Your task to perform on an android device: Search for "macbook pro 13 inch" on target.com, select the first entry, and add it to the cart. Image 0: 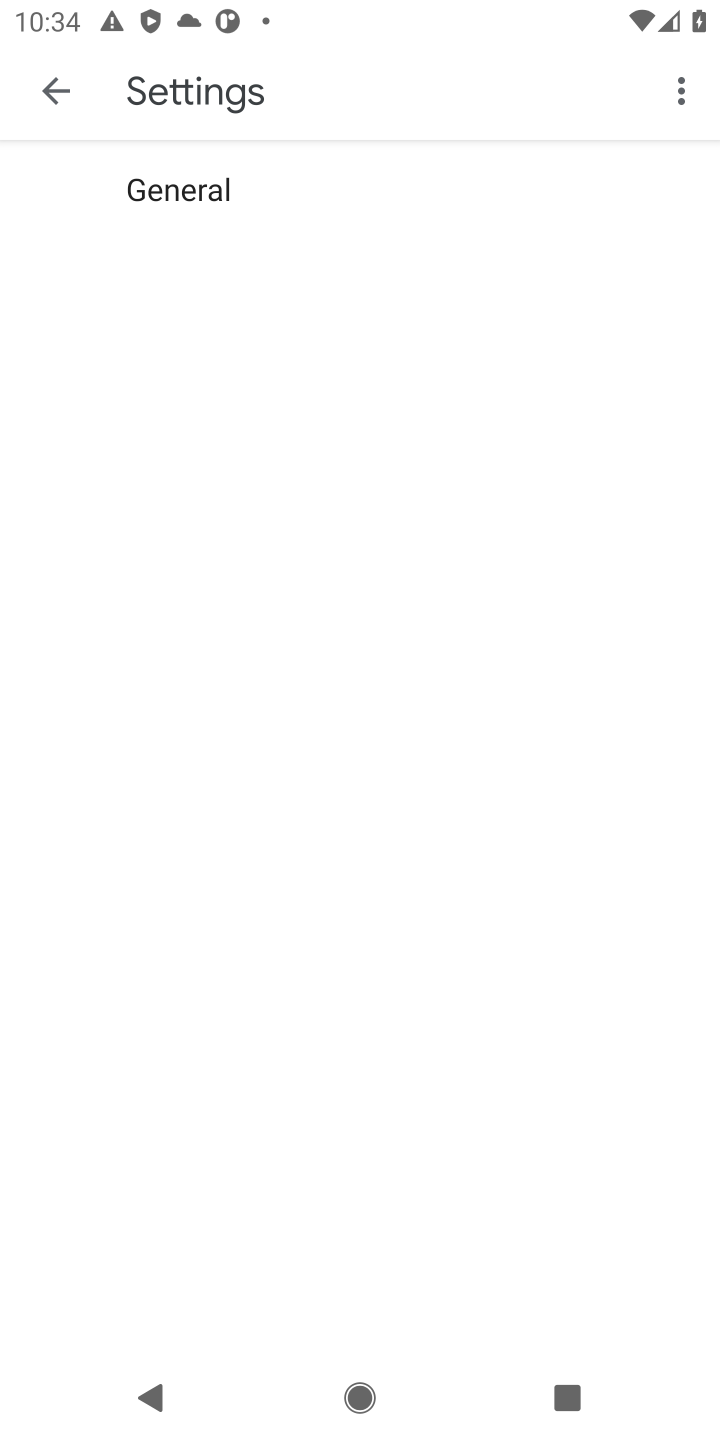
Step 0: press home button
Your task to perform on an android device: Search for "macbook pro 13 inch" on target.com, select the first entry, and add it to the cart. Image 1: 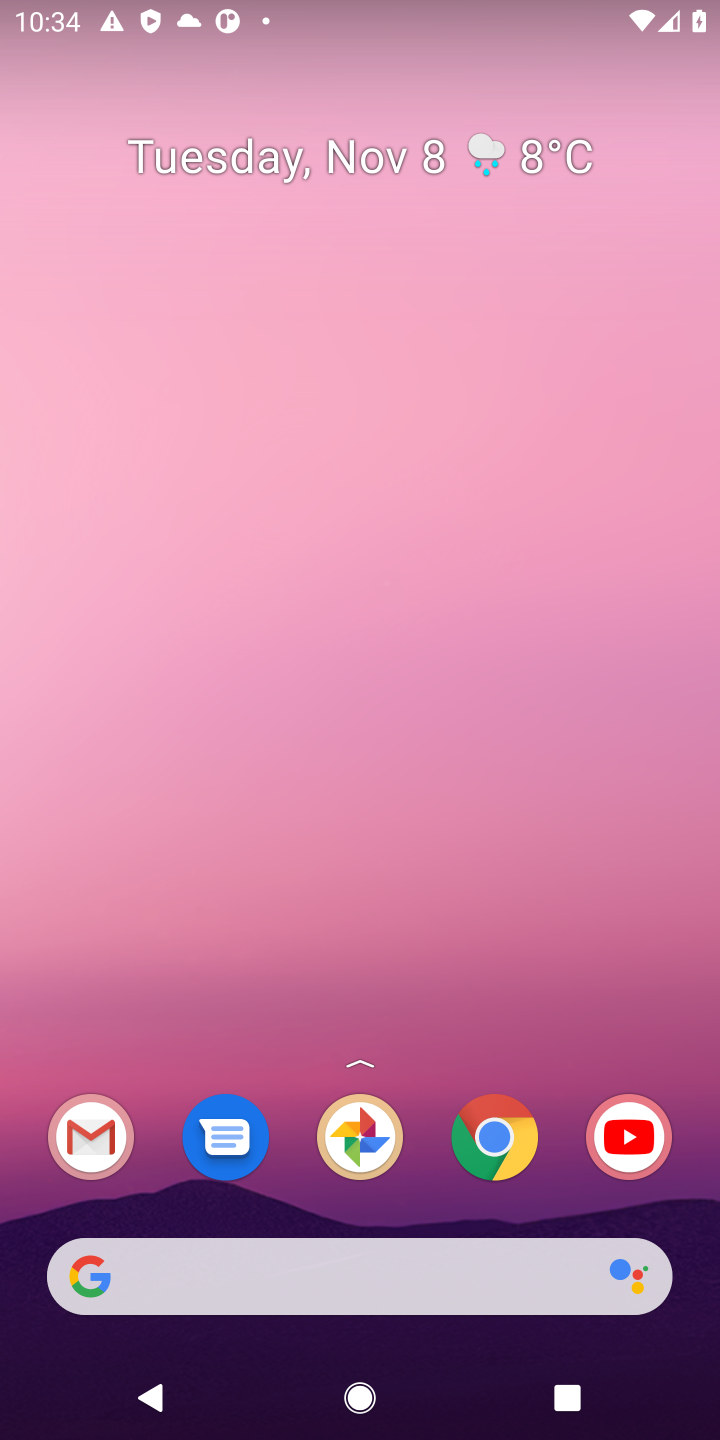
Step 1: click (482, 1139)
Your task to perform on an android device: Search for "macbook pro 13 inch" on target.com, select the first entry, and add it to the cart. Image 2: 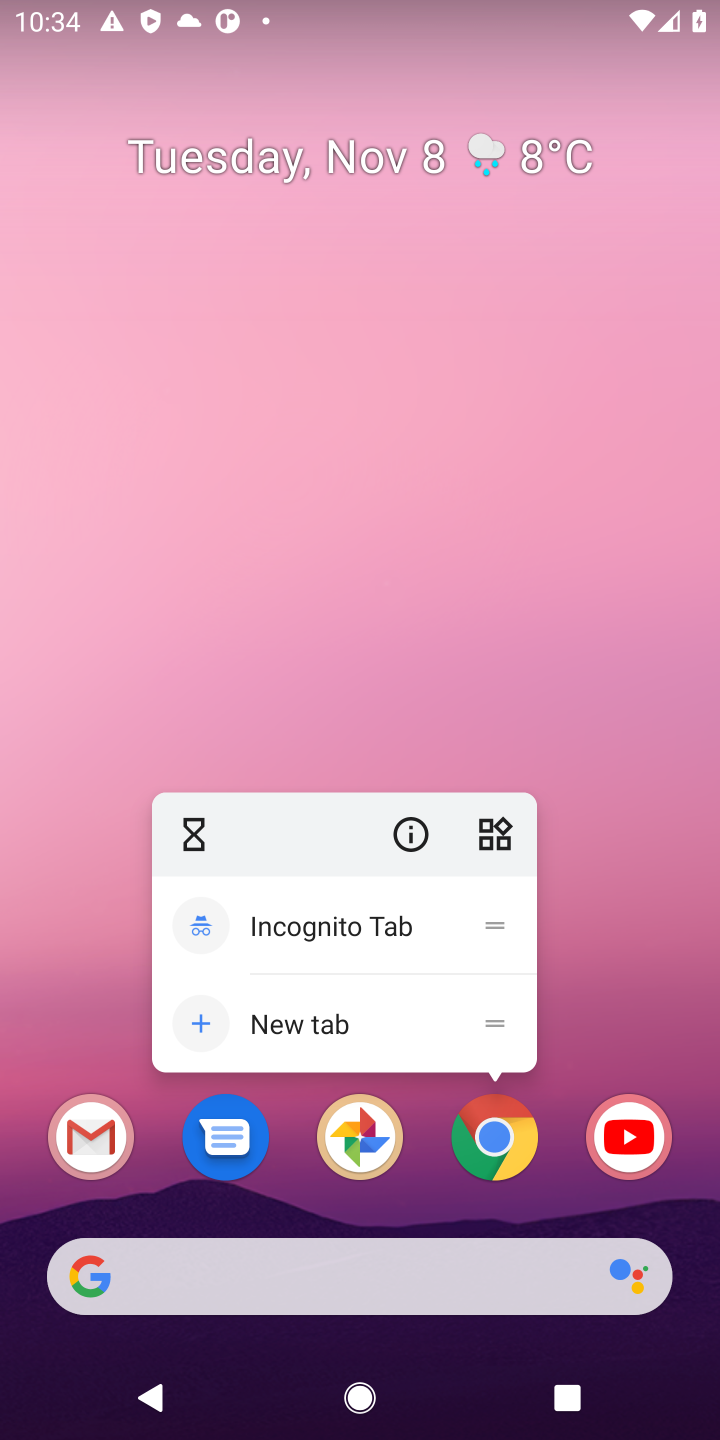
Step 2: click (487, 1126)
Your task to perform on an android device: Search for "macbook pro 13 inch" on target.com, select the first entry, and add it to the cart. Image 3: 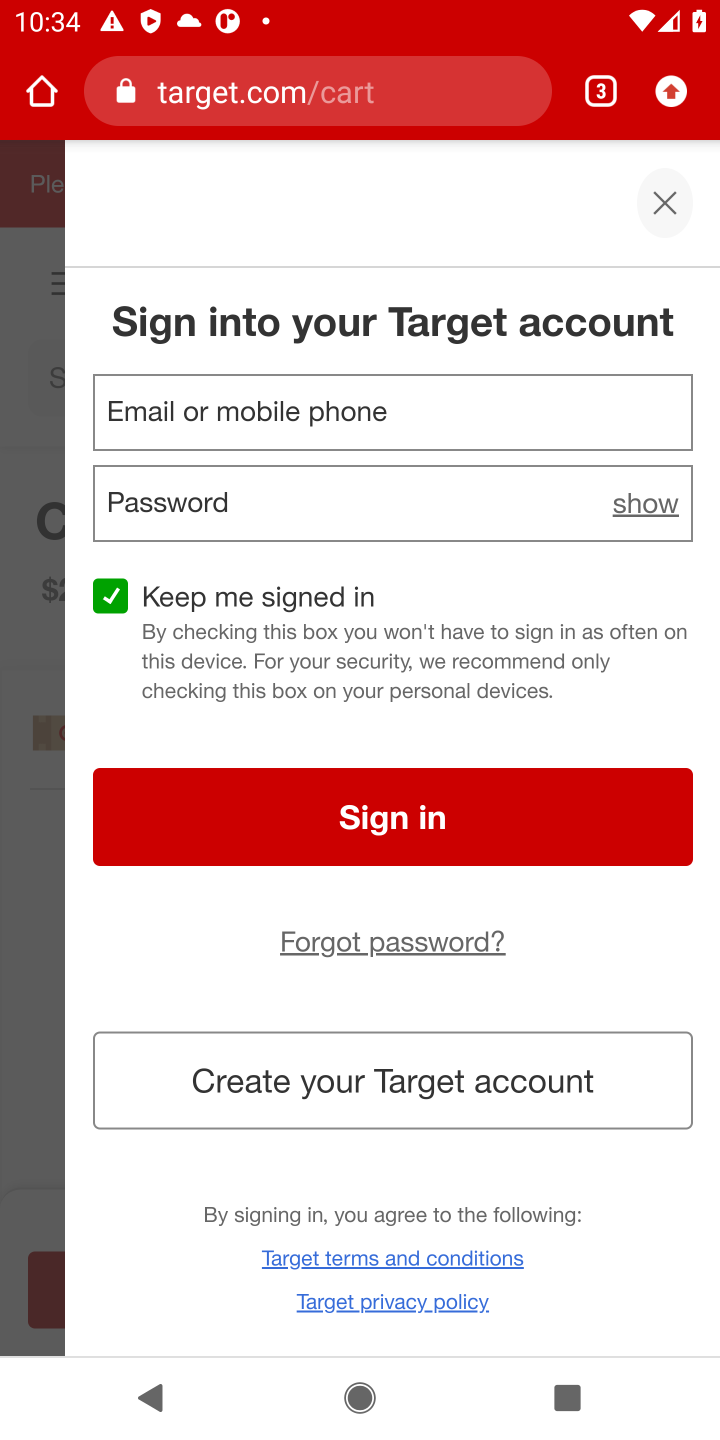
Step 3: click (656, 207)
Your task to perform on an android device: Search for "macbook pro 13 inch" on target.com, select the first entry, and add it to the cart. Image 4: 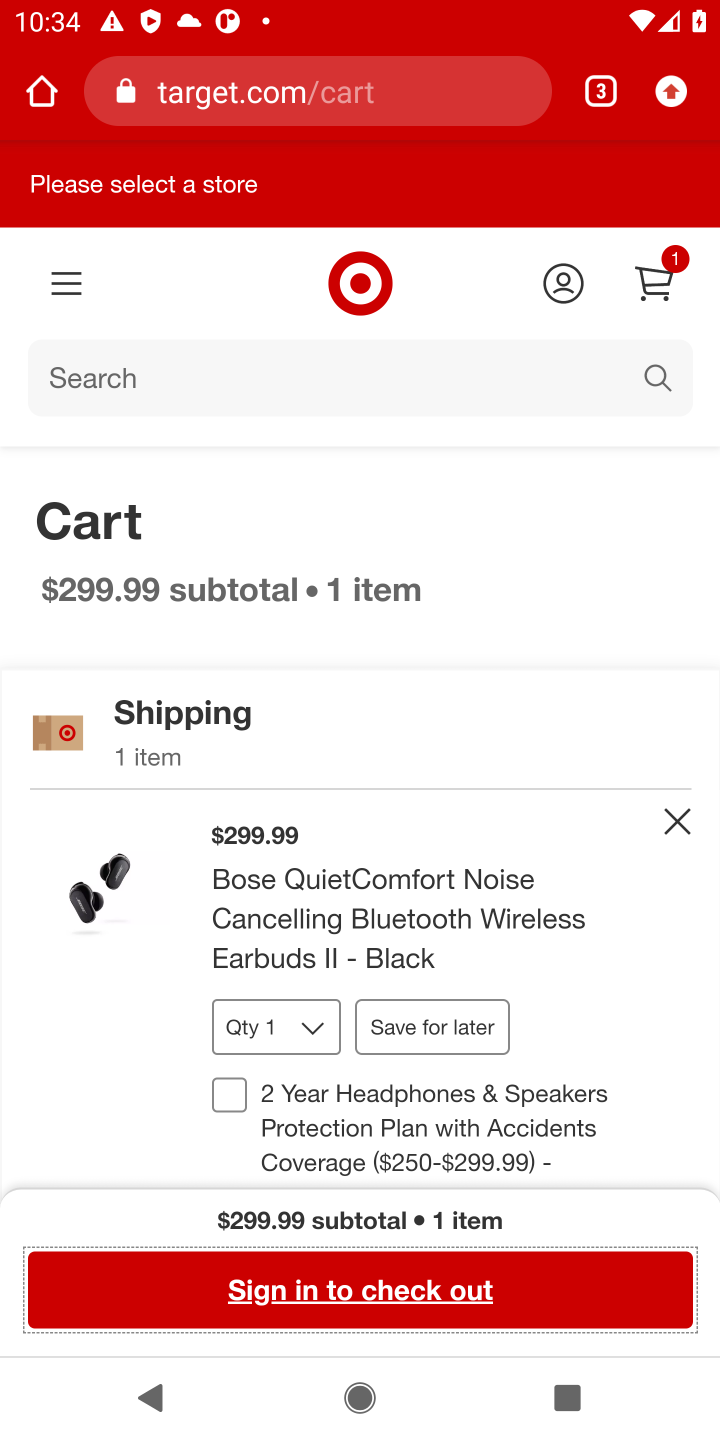
Step 4: click (226, 375)
Your task to perform on an android device: Search for "macbook pro 13 inch" on target.com, select the first entry, and add it to the cart. Image 5: 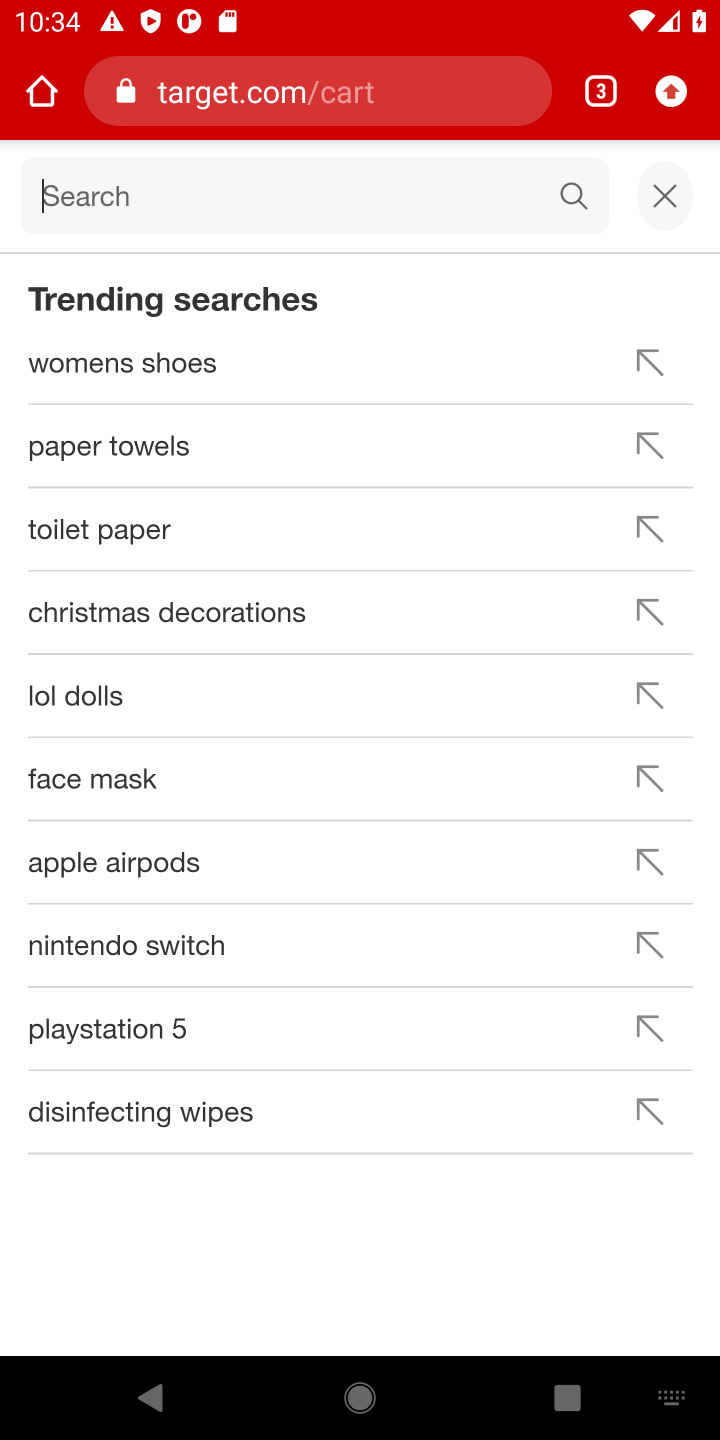
Step 5: type "macbook pro 13 inch"
Your task to perform on an android device: Search for "macbook pro 13 inch" on target.com, select the first entry, and add it to the cart. Image 6: 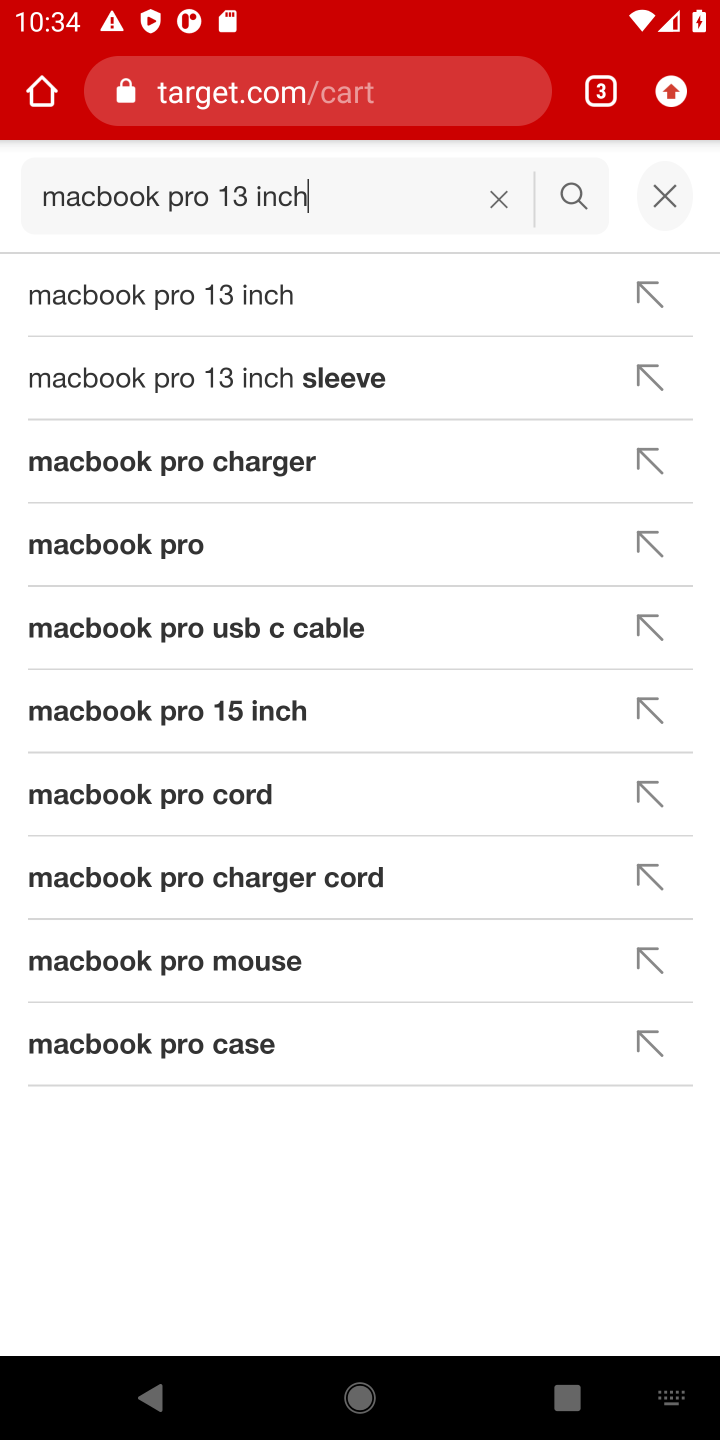
Step 6: click (258, 289)
Your task to perform on an android device: Search for "macbook pro 13 inch" on target.com, select the first entry, and add it to the cart. Image 7: 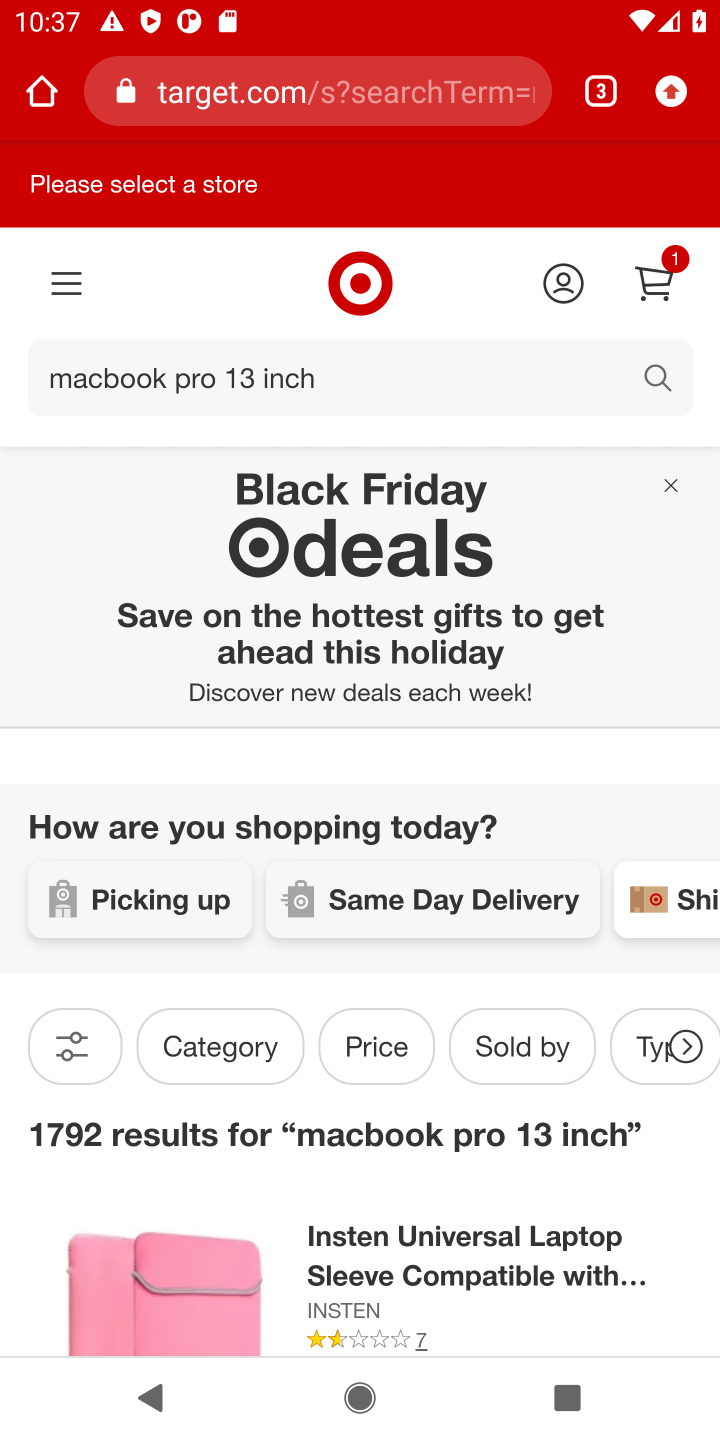
Step 7: drag from (423, 1297) to (596, 574)
Your task to perform on an android device: Search for "macbook pro 13 inch" on target.com, select the first entry, and add it to the cart. Image 8: 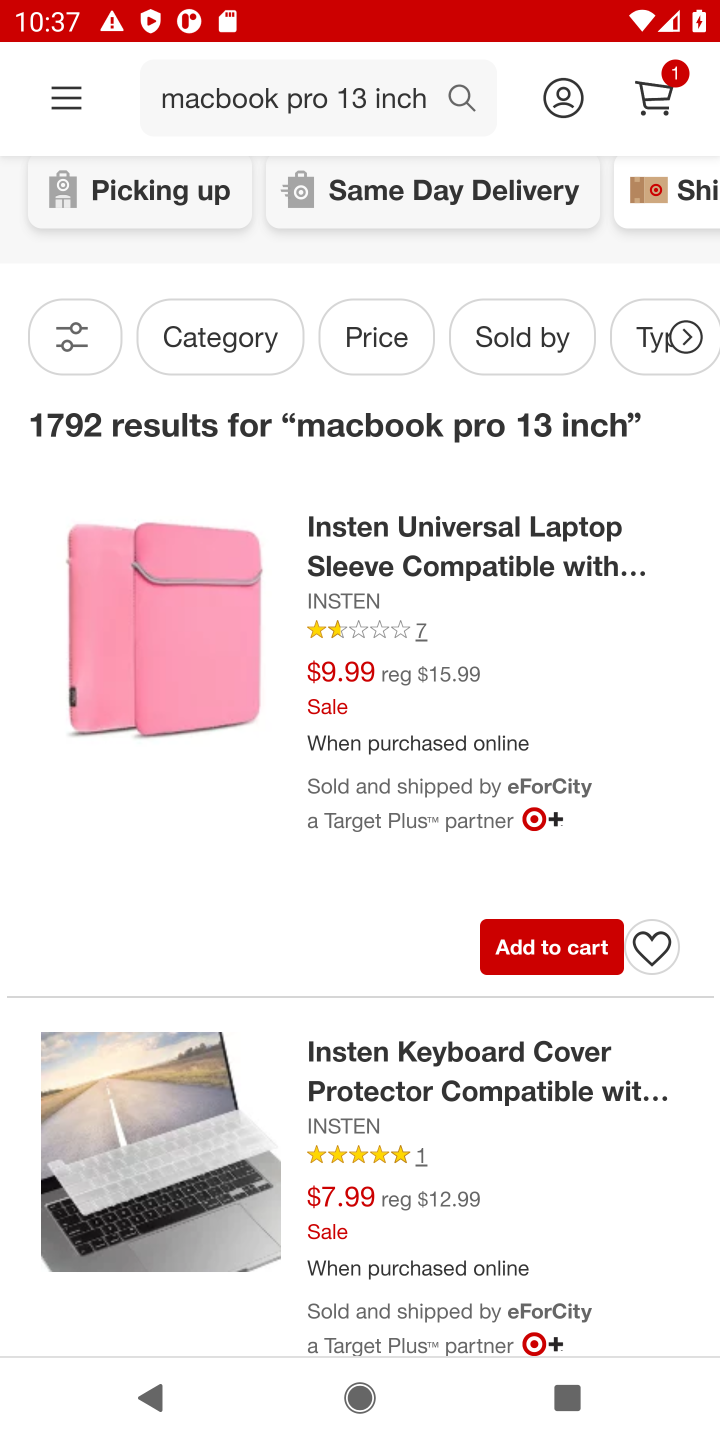
Step 8: drag from (543, 414) to (600, 1422)
Your task to perform on an android device: Search for "macbook pro 13 inch" on target.com, select the first entry, and add it to the cart. Image 9: 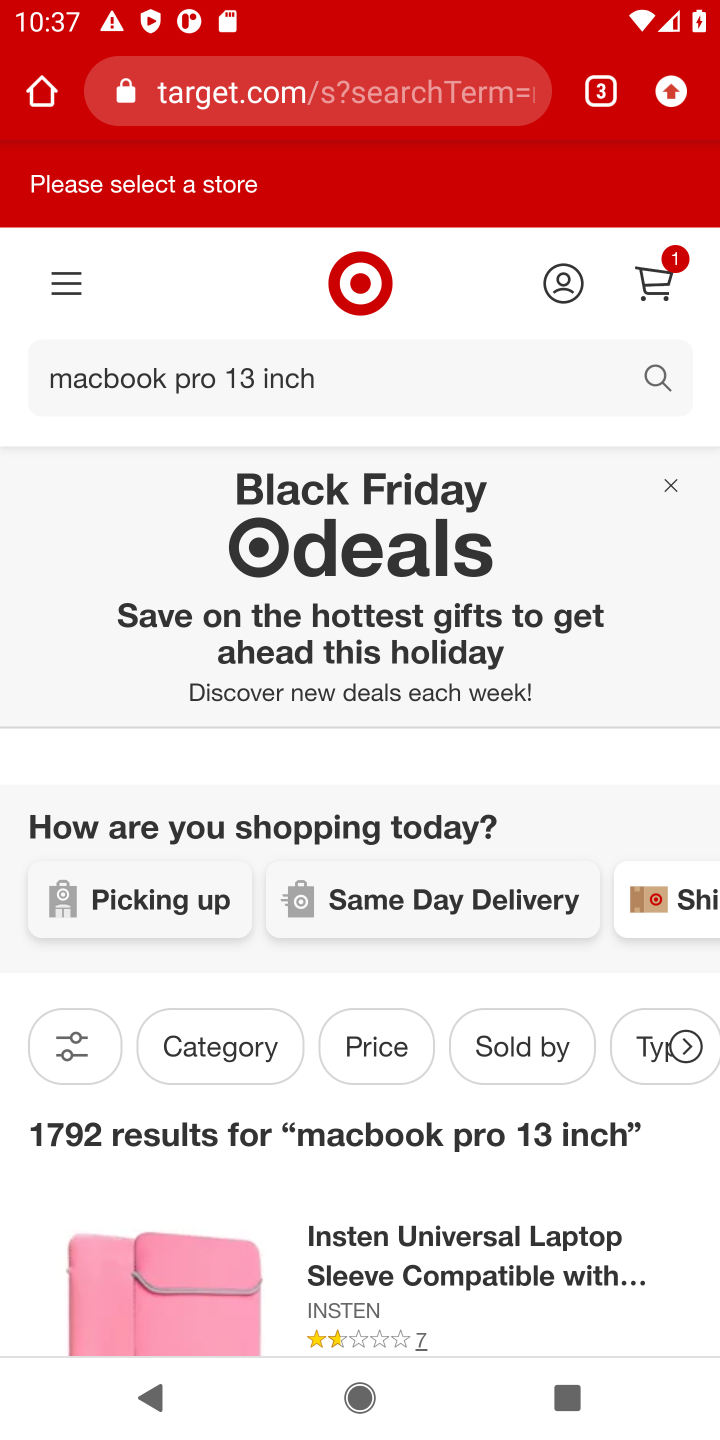
Step 9: click (652, 368)
Your task to perform on an android device: Search for "macbook pro 13 inch" on target.com, select the first entry, and add it to the cart. Image 10: 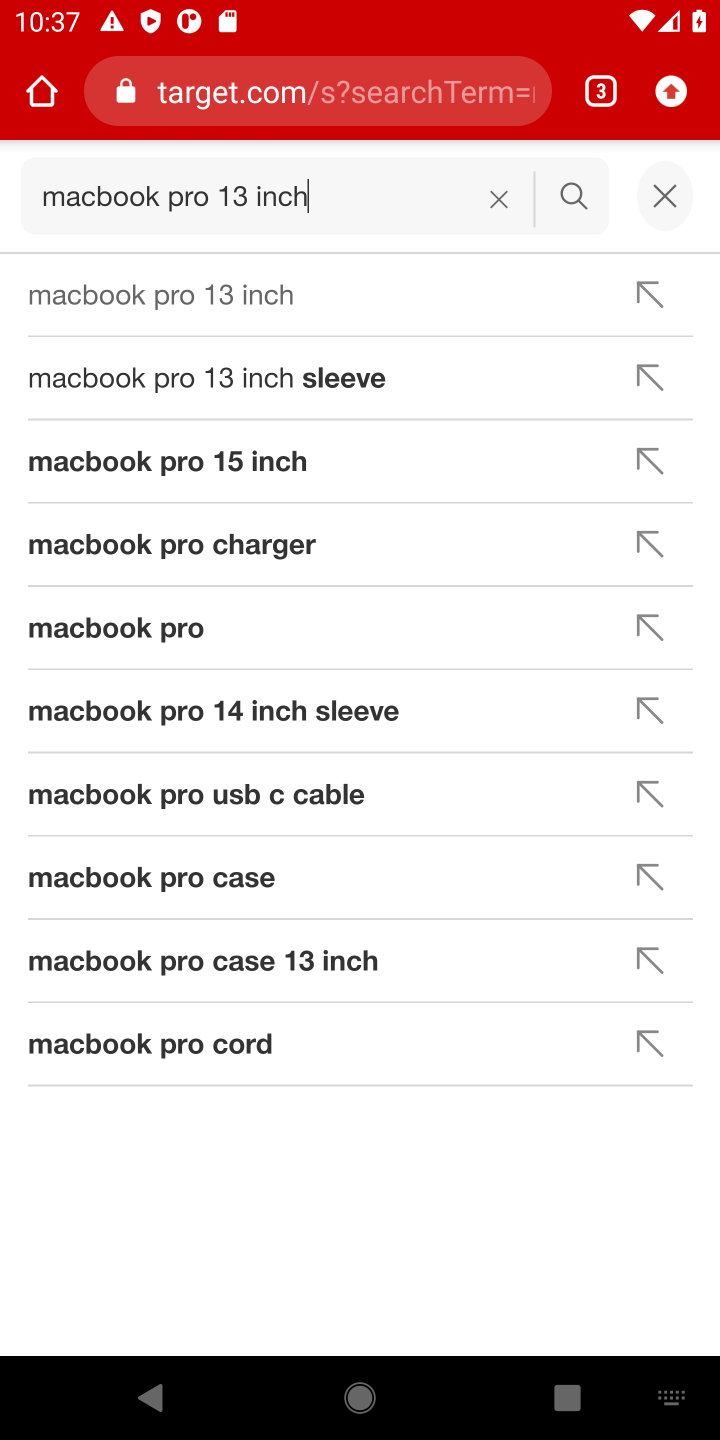
Step 10: click (237, 283)
Your task to perform on an android device: Search for "macbook pro 13 inch" on target.com, select the first entry, and add it to the cart. Image 11: 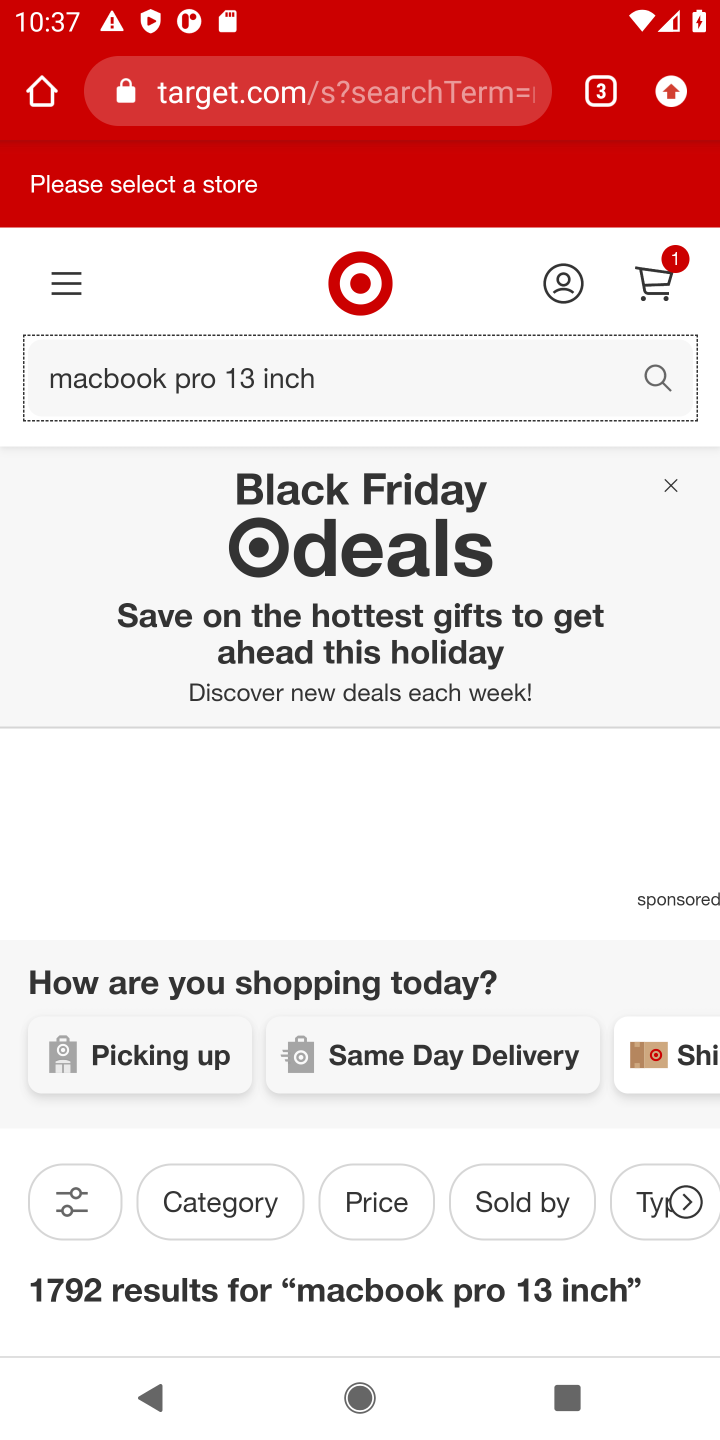
Step 11: task complete